Your task to perform on an android device: Go to Reddit.com Image 0: 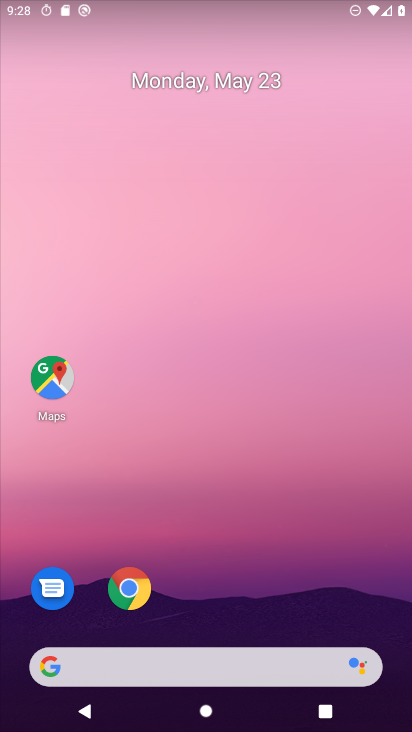
Step 0: click (129, 580)
Your task to perform on an android device: Go to Reddit.com Image 1: 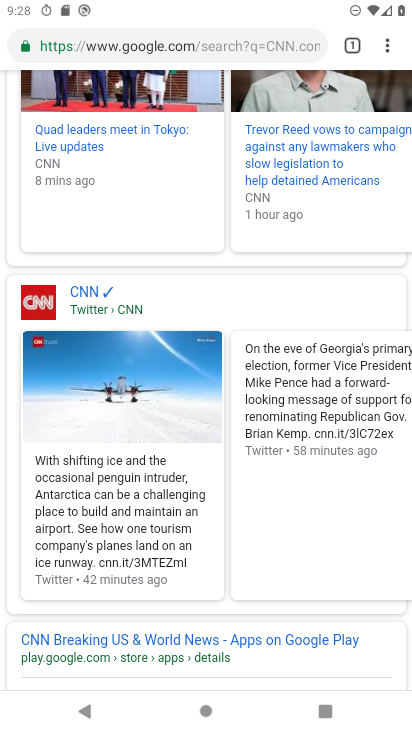
Step 1: click (319, 41)
Your task to perform on an android device: Go to Reddit.com Image 2: 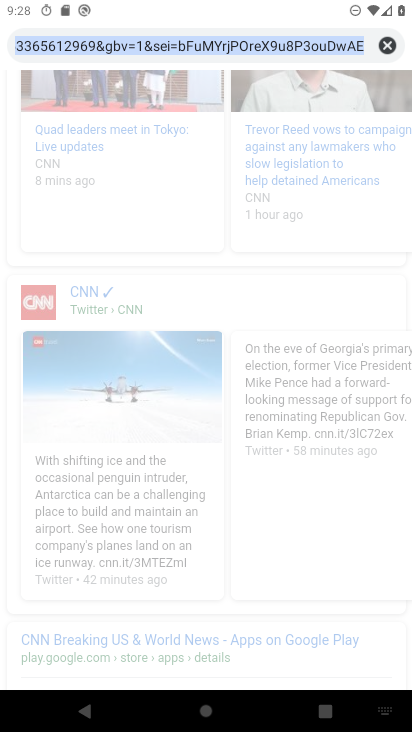
Step 2: click (383, 45)
Your task to perform on an android device: Go to Reddit.com Image 3: 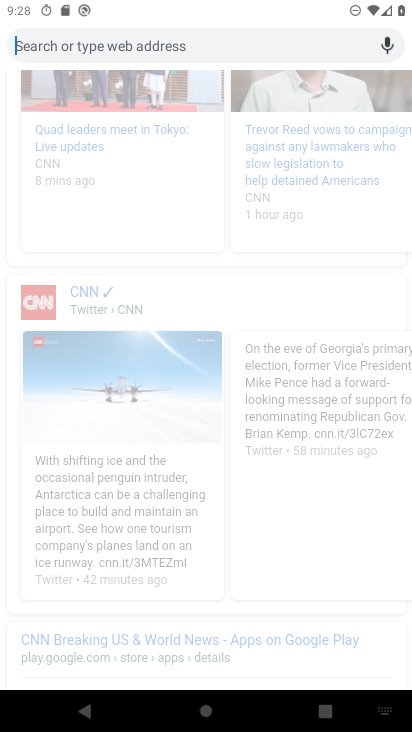
Step 3: type "Reddit.com"
Your task to perform on an android device: Go to Reddit.com Image 4: 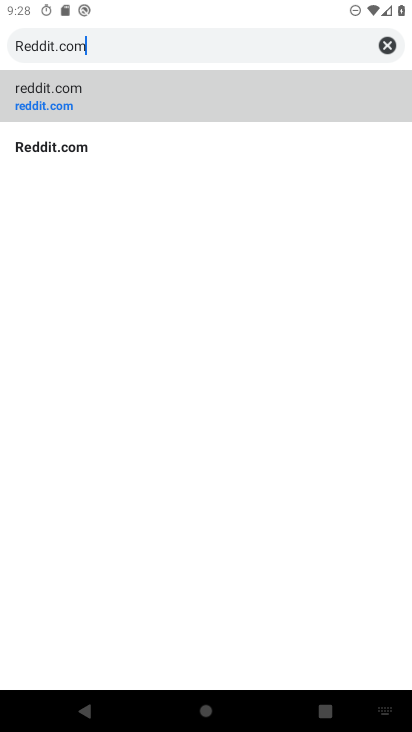
Step 4: click (68, 138)
Your task to perform on an android device: Go to Reddit.com Image 5: 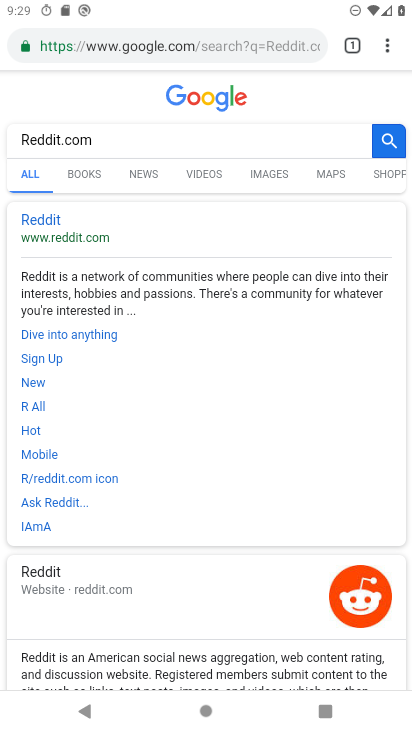
Step 5: task complete